Your task to perform on an android device: check google app version Image 0: 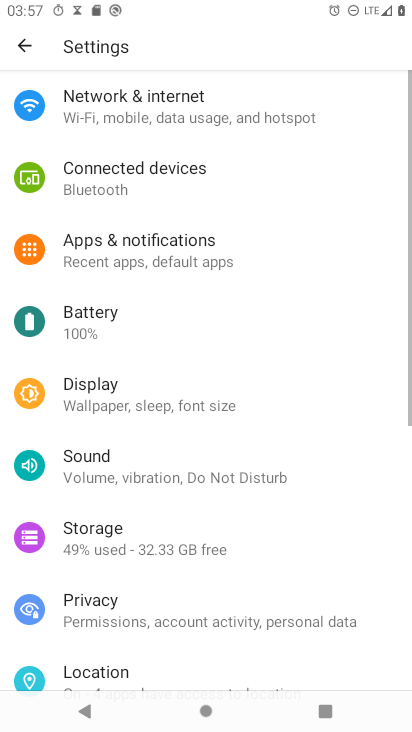
Step 0: press home button
Your task to perform on an android device: check google app version Image 1: 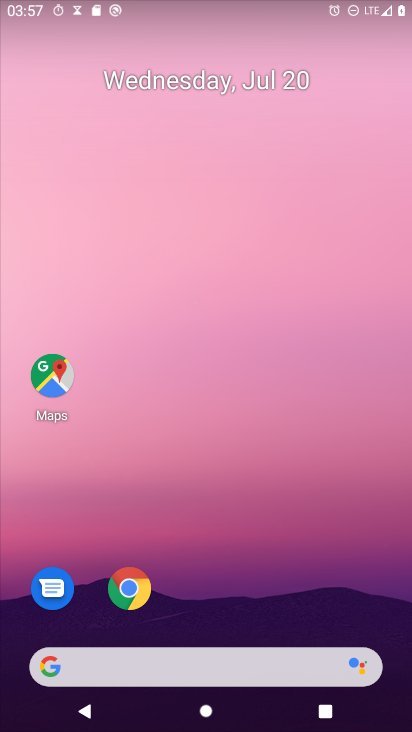
Step 1: drag from (185, 617) to (137, 0)
Your task to perform on an android device: check google app version Image 2: 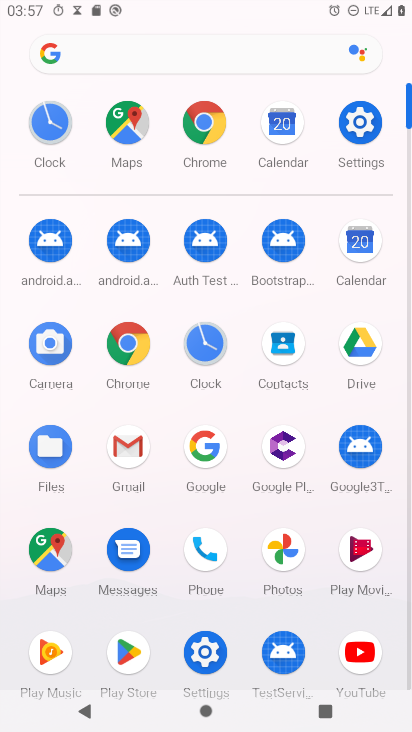
Step 2: click (201, 441)
Your task to perform on an android device: check google app version Image 3: 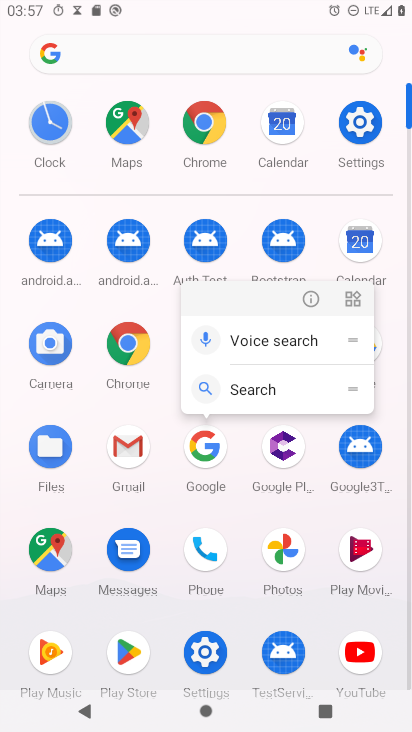
Step 3: click (318, 299)
Your task to perform on an android device: check google app version Image 4: 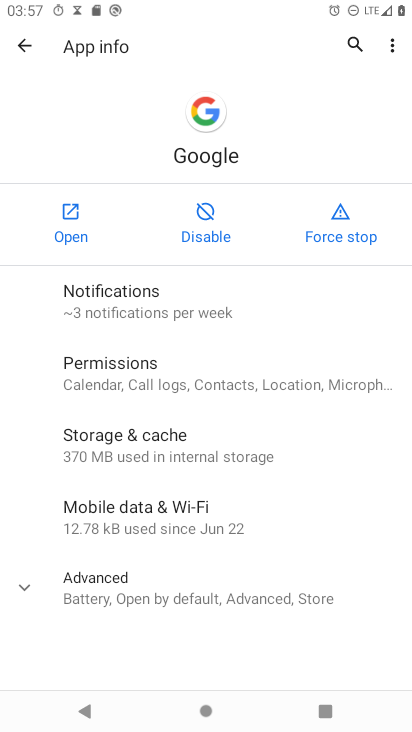
Step 4: click (157, 600)
Your task to perform on an android device: check google app version Image 5: 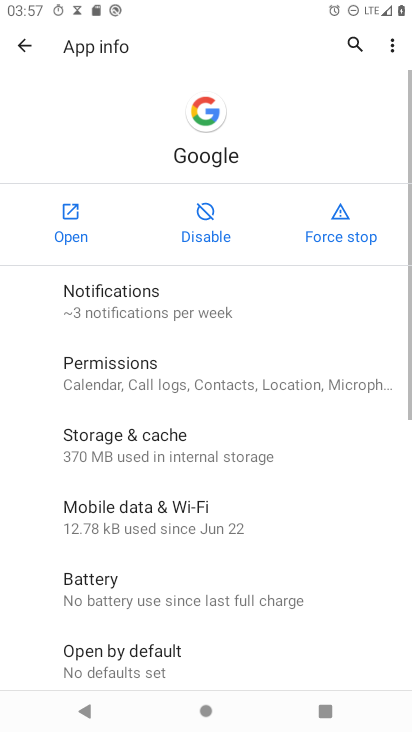
Step 5: task complete